Your task to perform on an android device: turn pop-ups off in chrome Image 0: 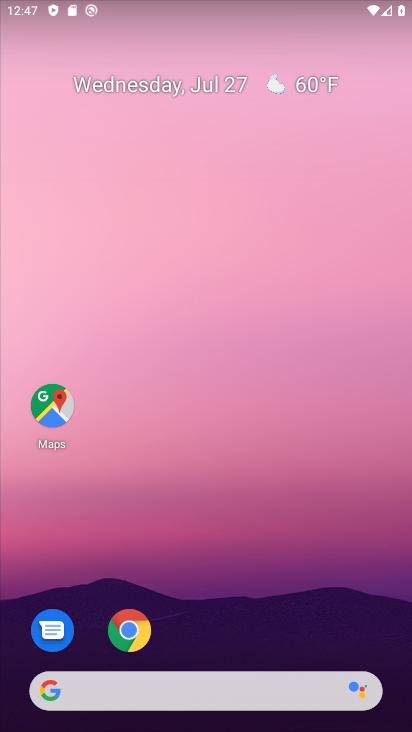
Step 0: press home button
Your task to perform on an android device: turn pop-ups off in chrome Image 1: 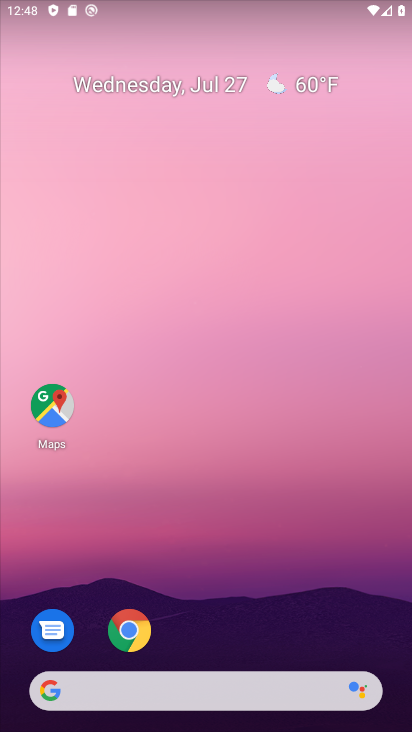
Step 1: drag from (254, 654) to (187, 260)
Your task to perform on an android device: turn pop-ups off in chrome Image 2: 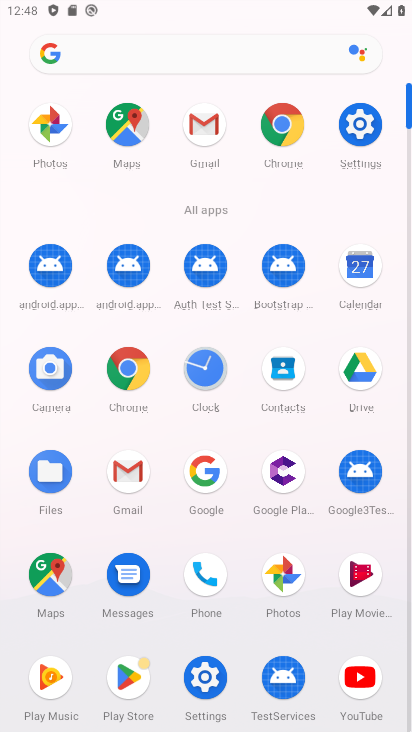
Step 2: click (291, 143)
Your task to perform on an android device: turn pop-ups off in chrome Image 3: 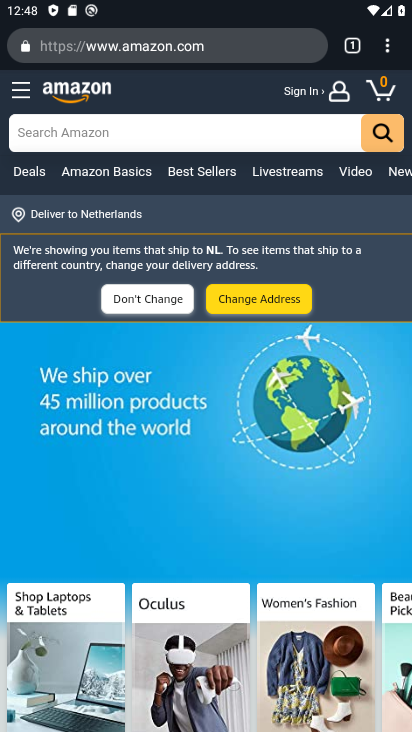
Step 3: drag from (386, 49) to (228, 552)
Your task to perform on an android device: turn pop-ups off in chrome Image 4: 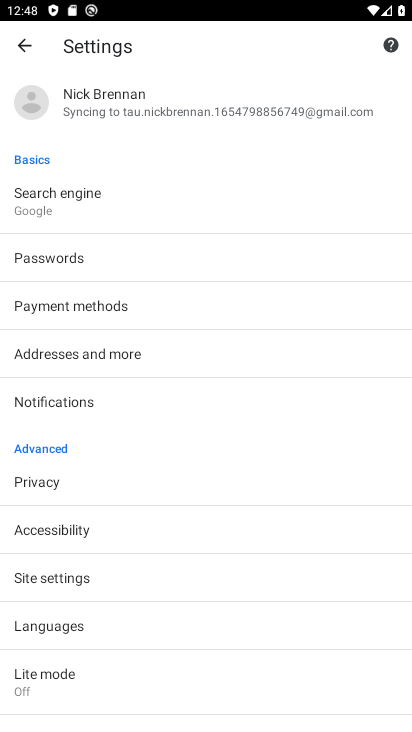
Step 4: click (47, 578)
Your task to perform on an android device: turn pop-ups off in chrome Image 5: 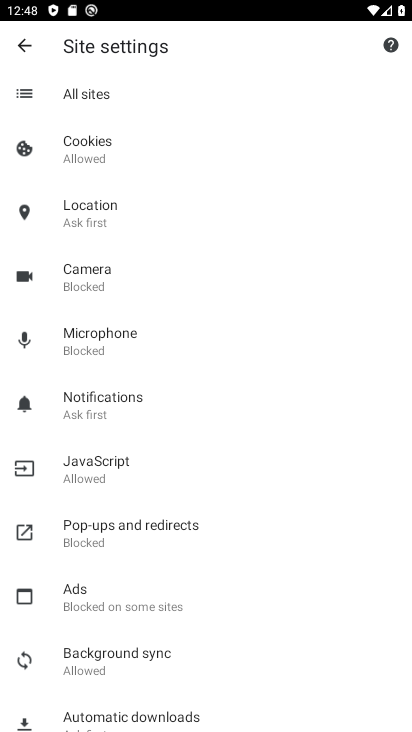
Step 5: click (138, 534)
Your task to perform on an android device: turn pop-ups off in chrome Image 6: 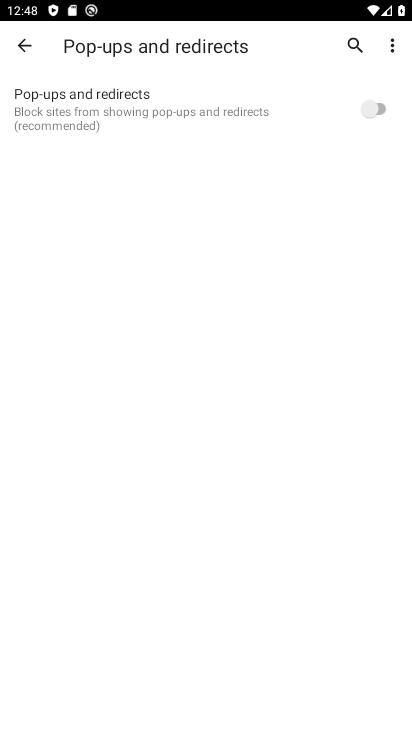
Step 6: task complete